Your task to perform on an android device: Go to eBay Image 0: 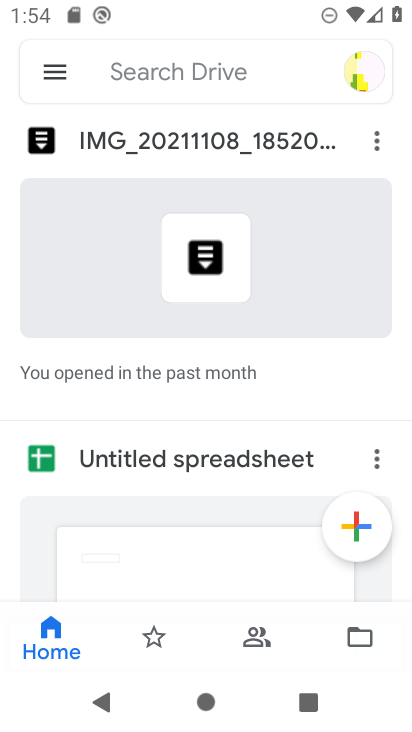
Step 0: press home button
Your task to perform on an android device: Go to eBay Image 1: 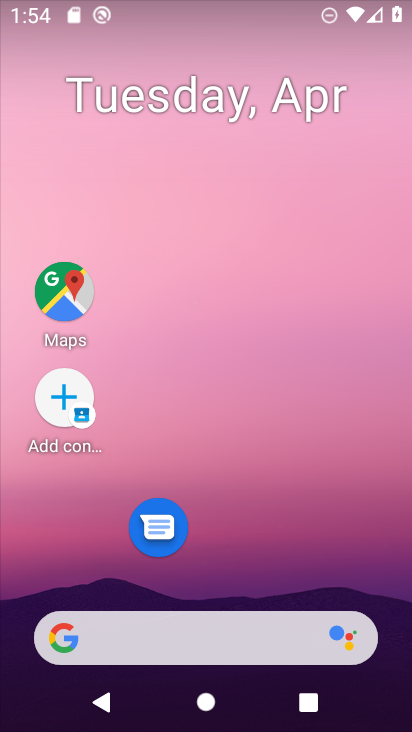
Step 1: drag from (248, 567) to (277, 76)
Your task to perform on an android device: Go to eBay Image 2: 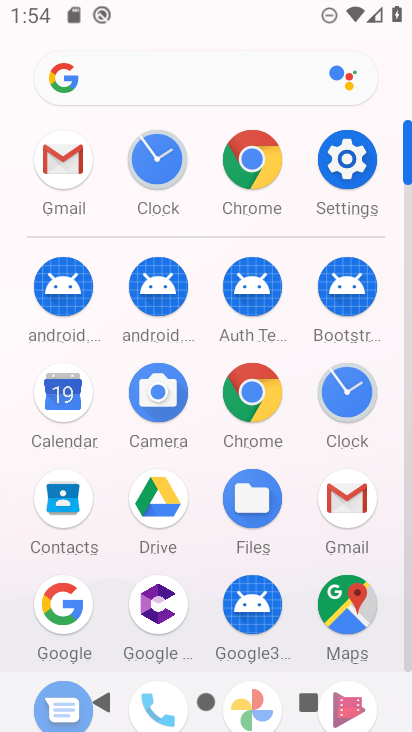
Step 2: click (255, 159)
Your task to perform on an android device: Go to eBay Image 3: 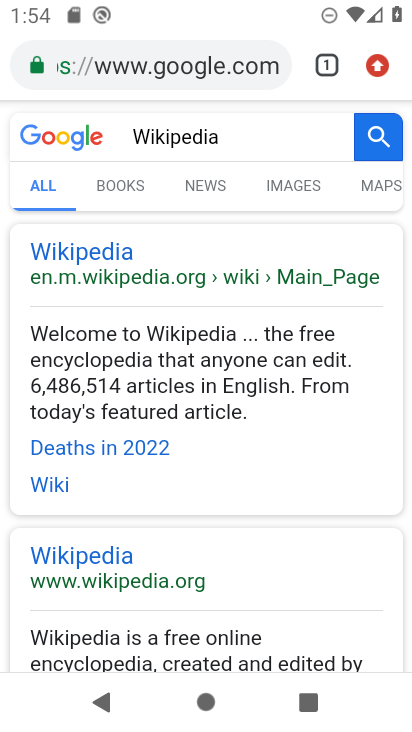
Step 3: click (241, 68)
Your task to perform on an android device: Go to eBay Image 4: 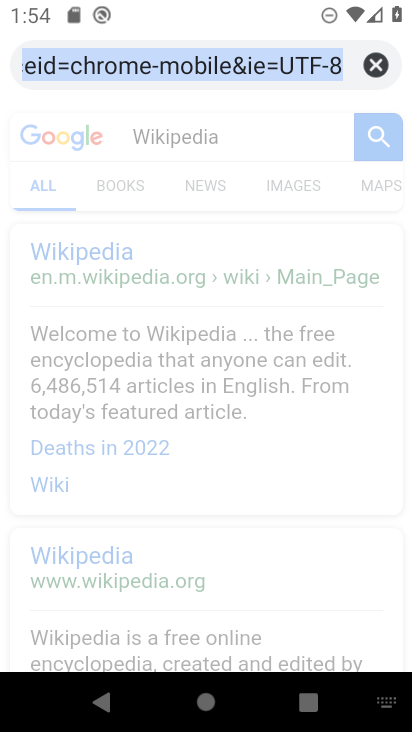
Step 4: click (377, 69)
Your task to perform on an android device: Go to eBay Image 5: 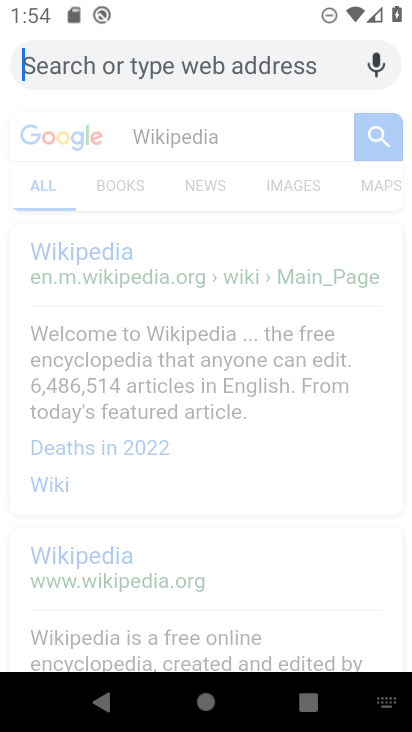
Step 5: click (272, 60)
Your task to perform on an android device: Go to eBay Image 6: 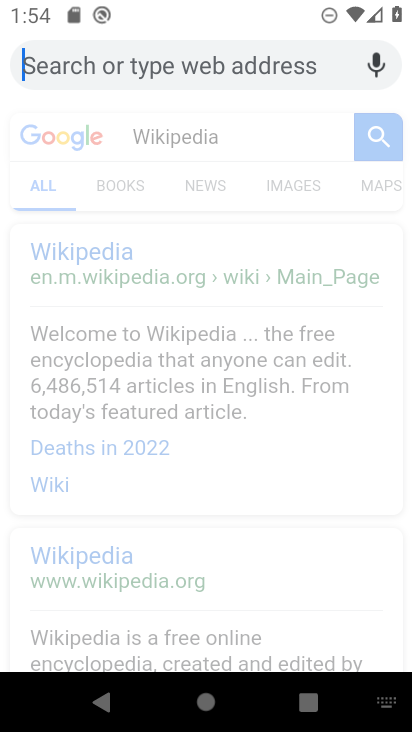
Step 6: type "eBay"
Your task to perform on an android device: Go to eBay Image 7: 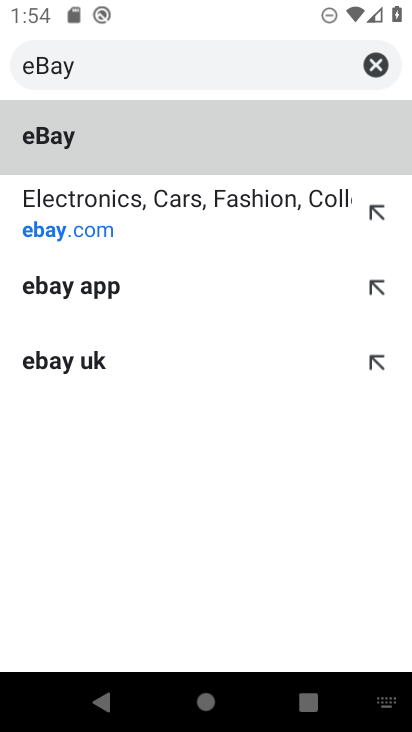
Step 7: click (85, 144)
Your task to perform on an android device: Go to eBay Image 8: 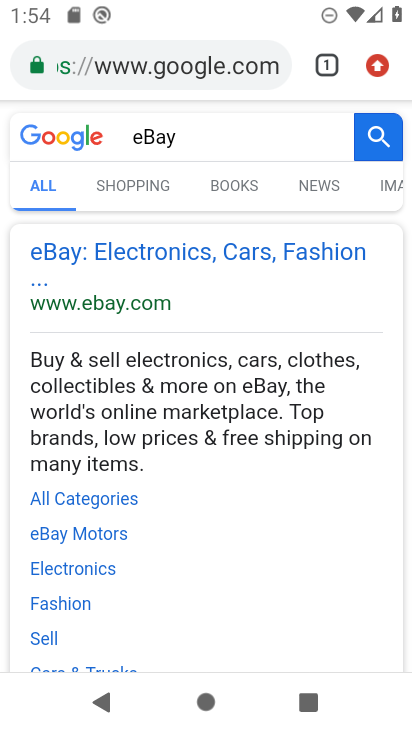
Step 8: task complete